Your task to perform on an android device: Search for Italian restaurants on Maps Image 0: 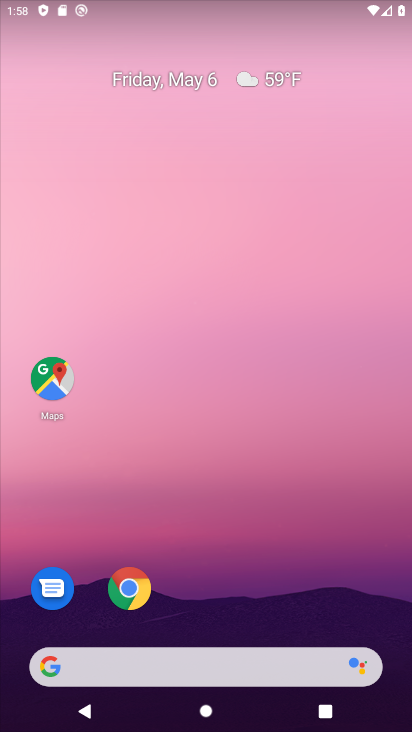
Step 0: click (65, 375)
Your task to perform on an android device: Search for Italian restaurants on Maps Image 1: 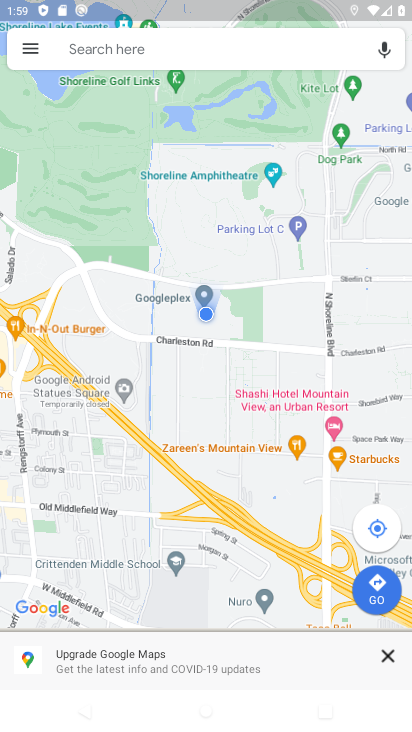
Step 1: click (161, 41)
Your task to perform on an android device: Search for Italian restaurants on Maps Image 2: 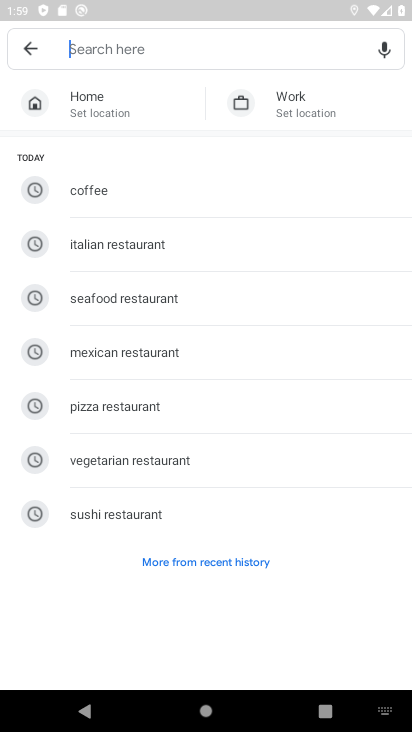
Step 2: click (127, 252)
Your task to perform on an android device: Search for Italian restaurants on Maps Image 3: 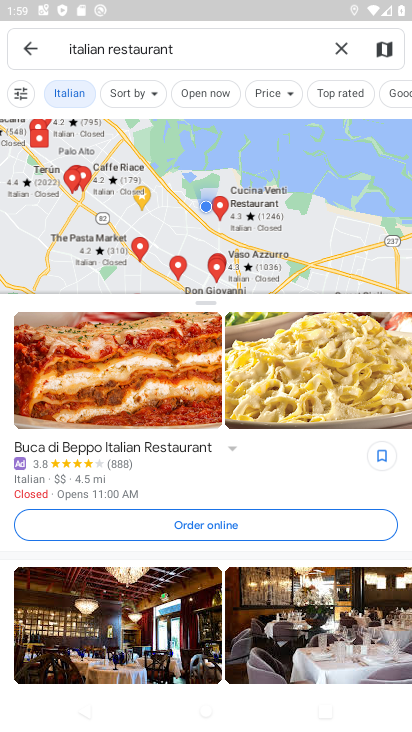
Step 3: task complete